Your task to perform on an android device: Do I have any events this weekend? Image 0: 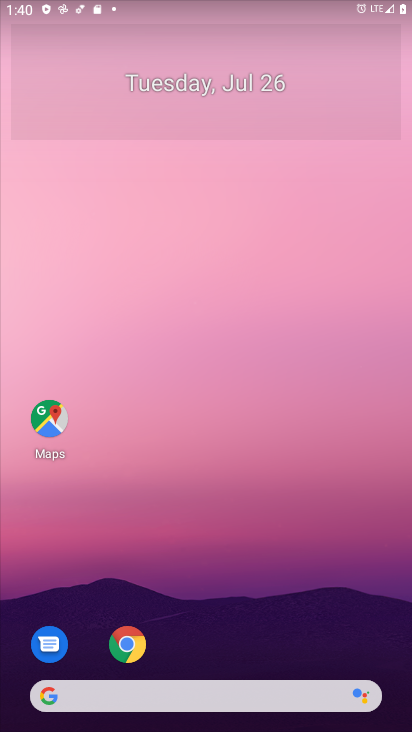
Step 0: drag from (181, 585) to (4, 71)
Your task to perform on an android device: Do I have any events this weekend? Image 1: 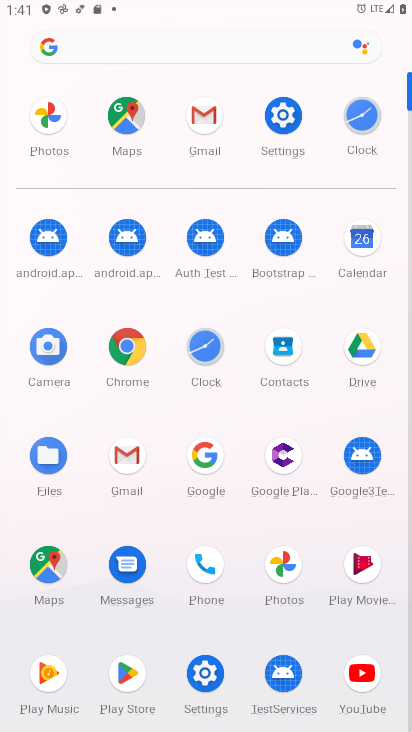
Step 1: click (357, 250)
Your task to perform on an android device: Do I have any events this weekend? Image 2: 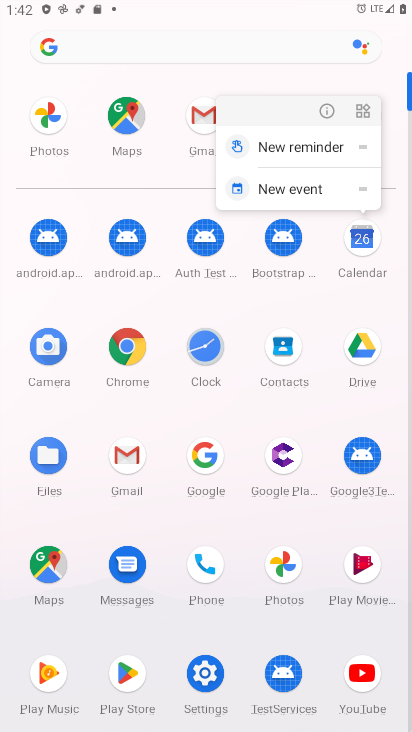
Step 2: click (362, 243)
Your task to perform on an android device: Do I have any events this weekend? Image 3: 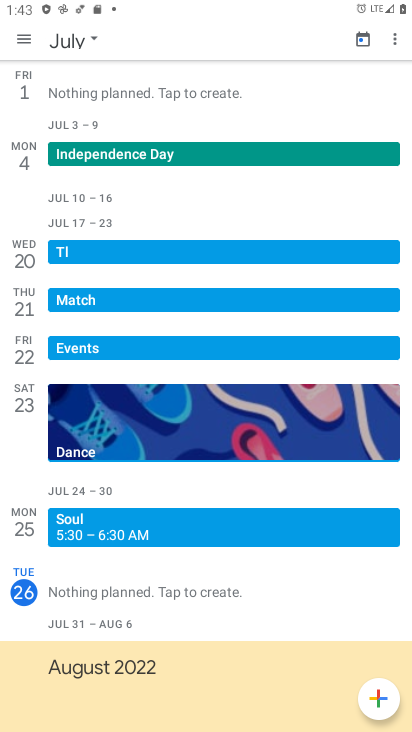
Step 3: task complete